Your task to perform on an android device: turn off translation in the chrome app Image 0: 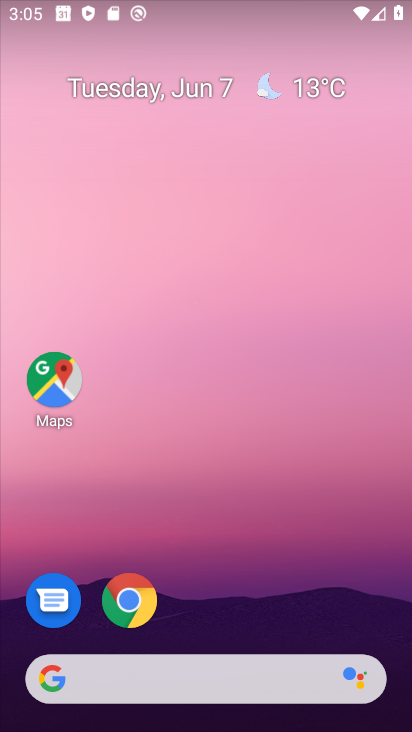
Step 0: click (134, 600)
Your task to perform on an android device: turn off translation in the chrome app Image 1: 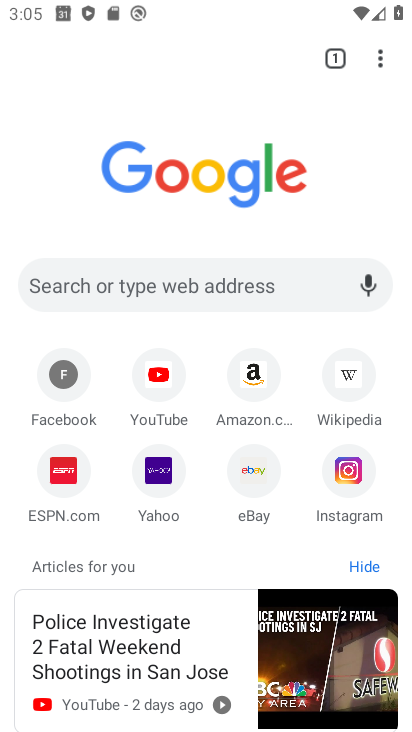
Step 1: click (374, 61)
Your task to perform on an android device: turn off translation in the chrome app Image 2: 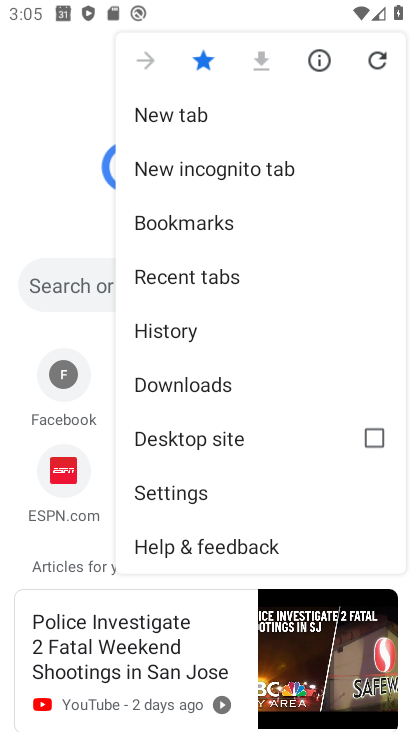
Step 2: click (205, 498)
Your task to perform on an android device: turn off translation in the chrome app Image 3: 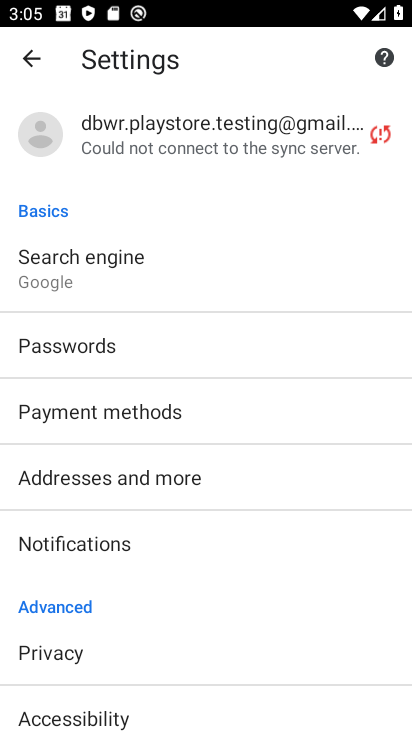
Step 3: drag from (177, 671) to (103, 209)
Your task to perform on an android device: turn off translation in the chrome app Image 4: 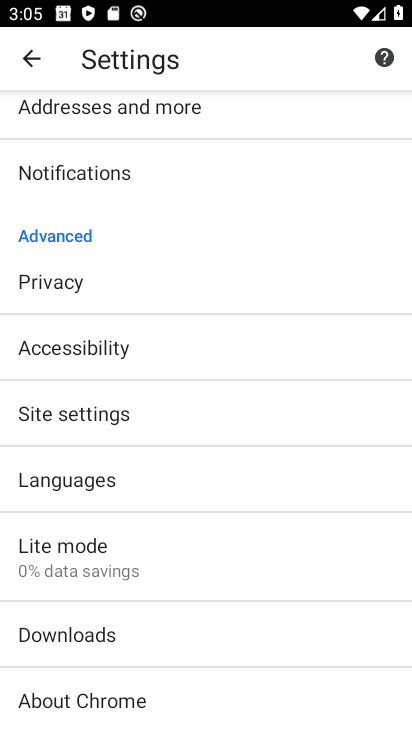
Step 4: click (95, 481)
Your task to perform on an android device: turn off translation in the chrome app Image 5: 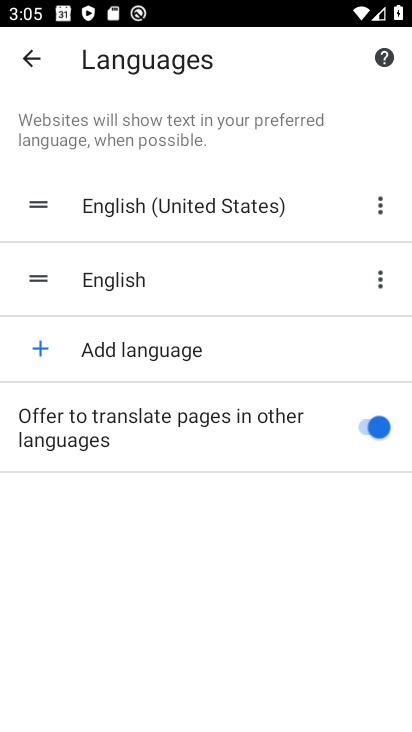
Step 5: drag from (257, 585) to (256, 299)
Your task to perform on an android device: turn off translation in the chrome app Image 6: 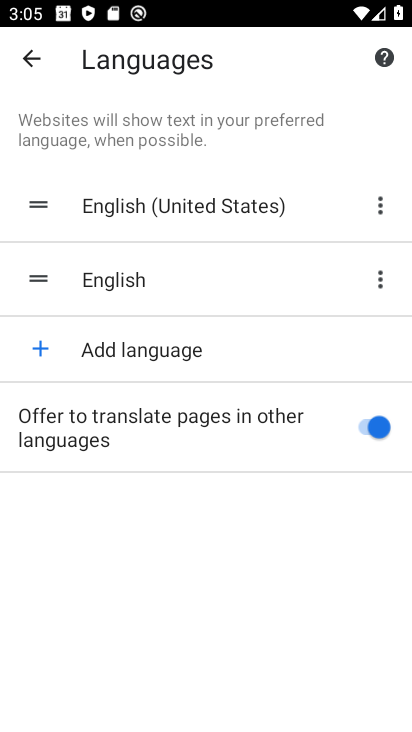
Step 6: click (386, 431)
Your task to perform on an android device: turn off translation in the chrome app Image 7: 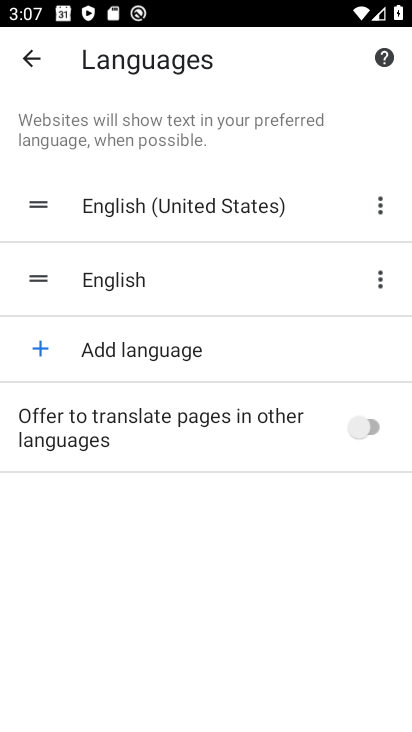
Step 7: task complete